Your task to perform on an android device: toggle notification dots Image 0: 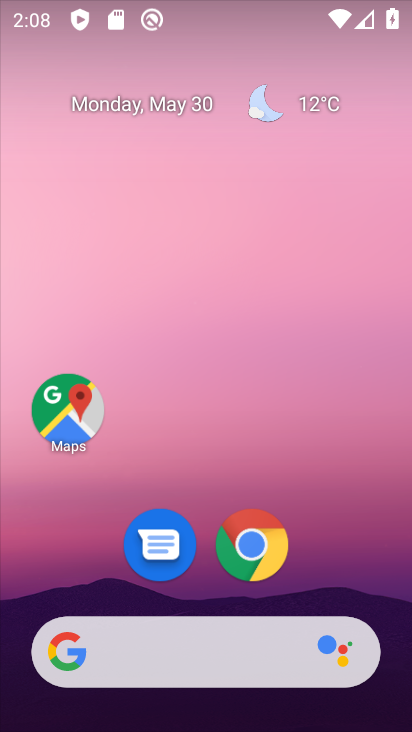
Step 0: drag from (253, 6) to (316, 0)
Your task to perform on an android device: toggle notification dots Image 1: 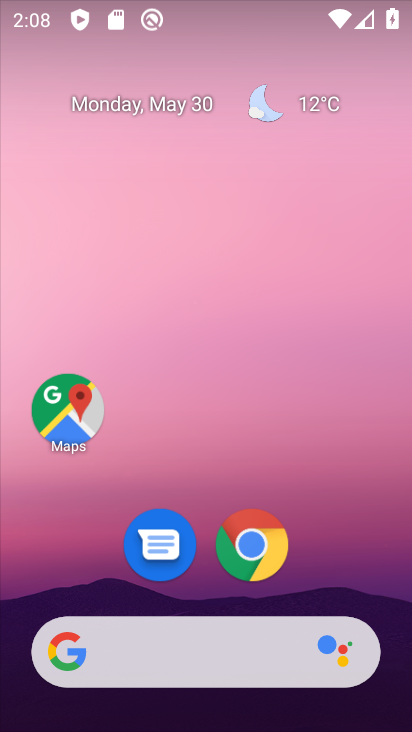
Step 1: drag from (188, 601) to (218, 116)
Your task to perform on an android device: toggle notification dots Image 2: 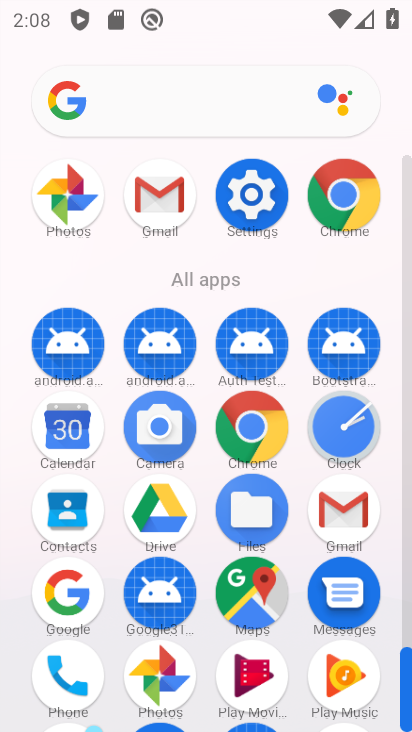
Step 2: click (253, 172)
Your task to perform on an android device: toggle notification dots Image 3: 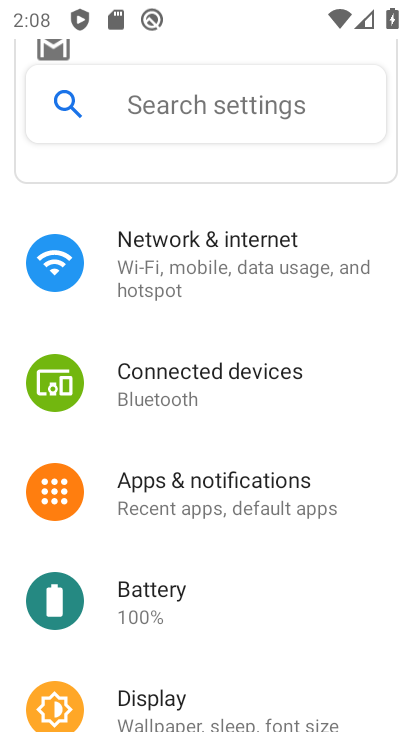
Step 3: click (184, 496)
Your task to perform on an android device: toggle notification dots Image 4: 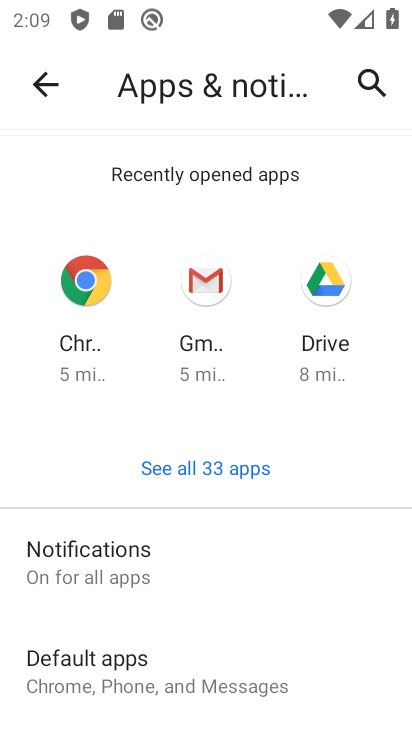
Step 4: click (147, 546)
Your task to perform on an android device: toggle notification dots Image 5: 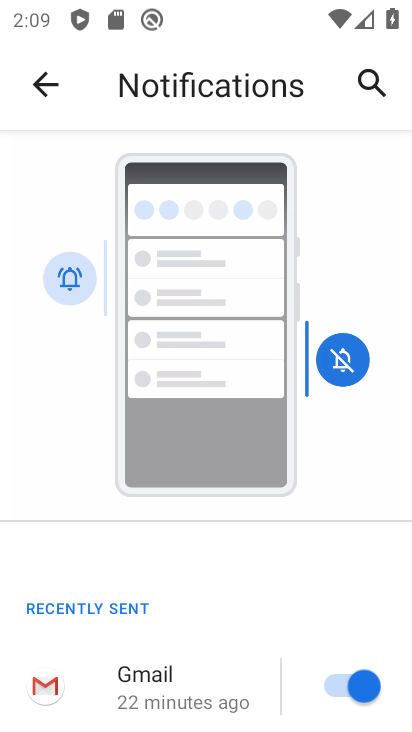
Step 5: drag from (148, 633) to (200, 92)
Your task to perform on an android device: toggle notification dots Image 6: 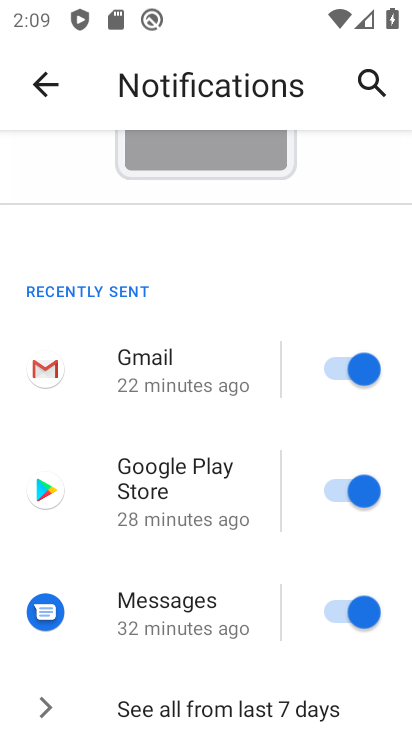
Step 6: drag from (163, 587) to (180, 106)
Your task to perform on an android device: toggle notification dots Image 7: 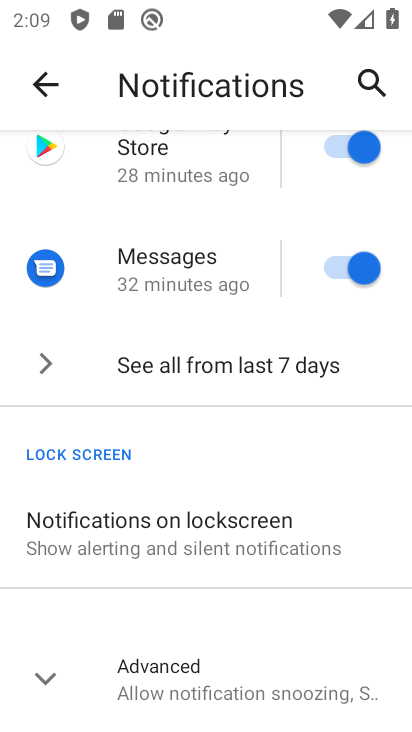
Step 7: click (209, 544)
Your task to perform on an android device: toggle notification dots Image 8: 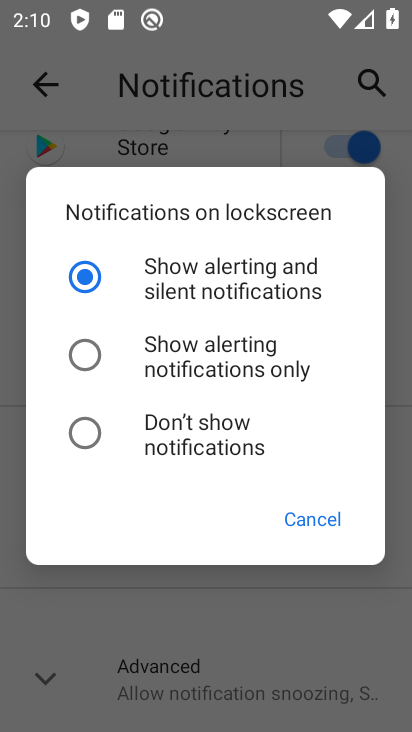
Step 8: click (139, 641)
Your task to perform on an android device: toggle notification dots Image 9: 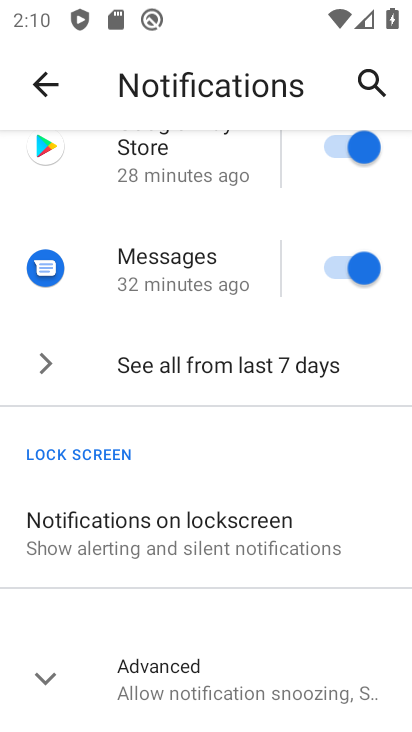
Step 9: drag from (139, 641) to (299, 7)
Your task to perform on an android device: toggle notification dots Image 10: 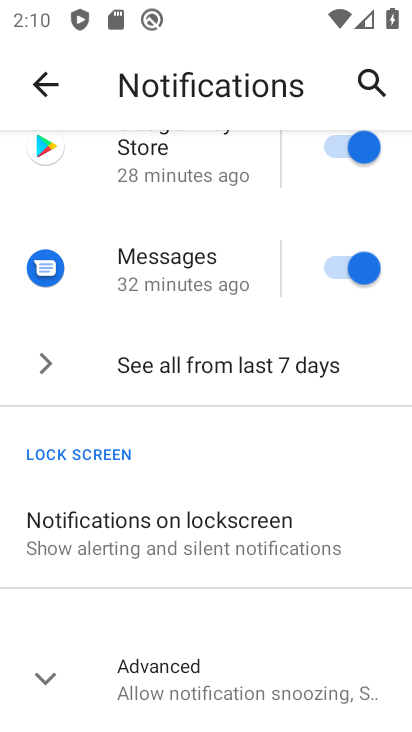
Step 10: click (148, 652)
Your task to perform on an android device: toggle notification dots Image 11: 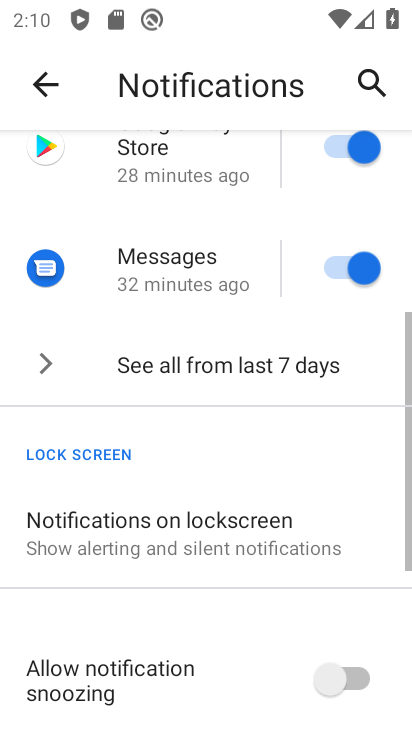
Step 11: drag from (148, 652) to (195, 173)
Your task to perform on an android device: toggle notification dots Image 12: 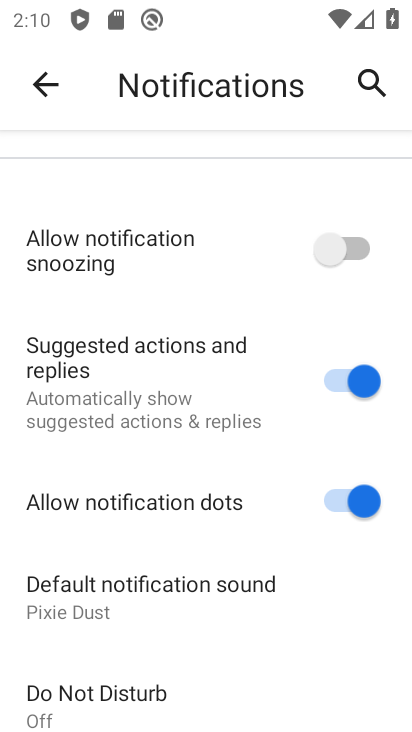
Step 12: click (341, 504)
Your task to perform on an android device: toggle notification dots Image 13: 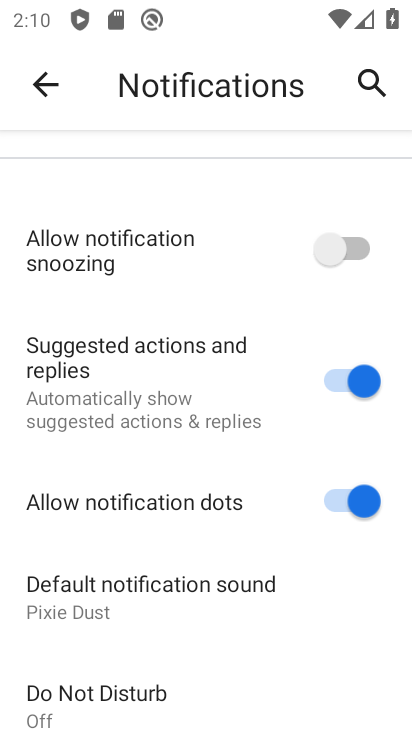
Step 13: click (341, 504)
Your task to perform on an android device: toggle notification dots Image 14: 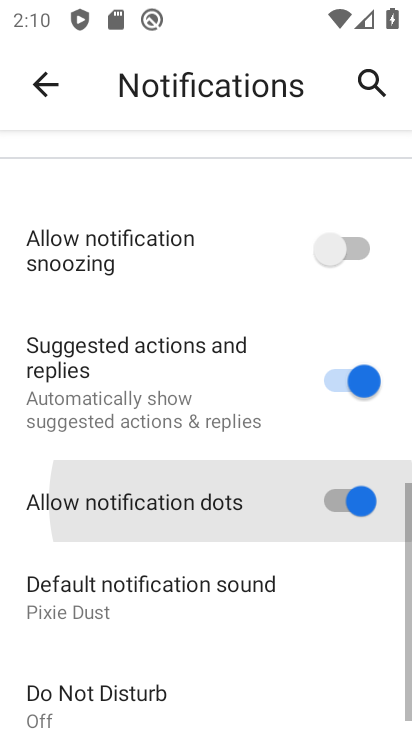
Step 14: click (341, 504)
Your task to perform on an android device: toggle notification dots Image 15: 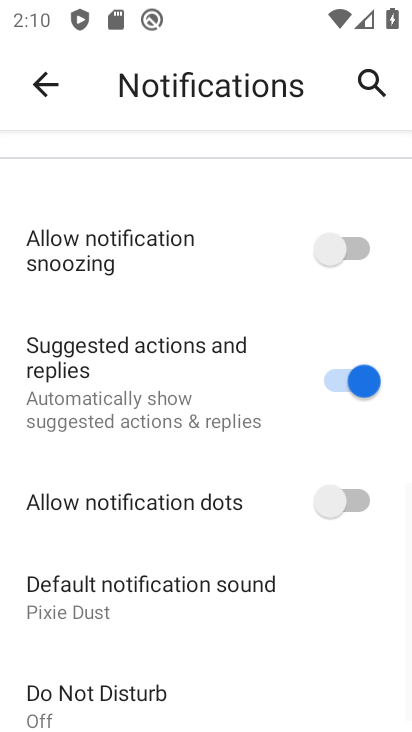
Step 15: task complete